Your task to perform on an android device: turn off notifications settings in the gmail app Image 0: 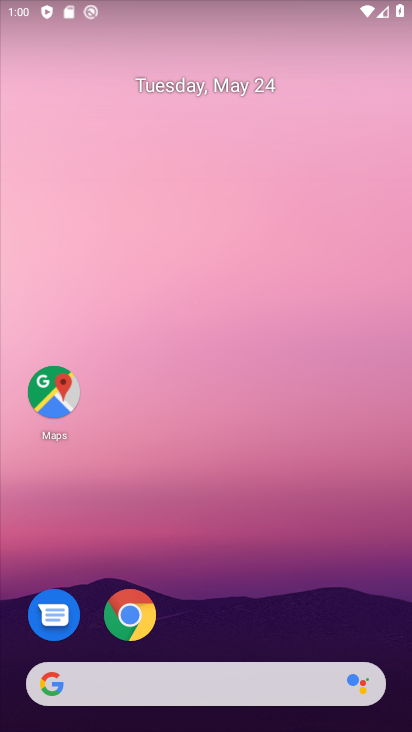
Step 0: drag from (216, 641) to (243, 127)
Your task to perform on an android device: turn off notifications settings in the gmail app Image 1: 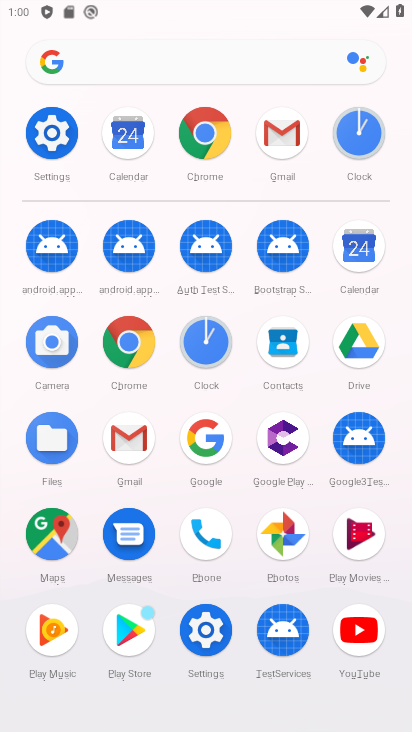
Step 1: click (129, 431)
Your task to perform on an android device: turn off notifications settings in the gmail app Image 2: 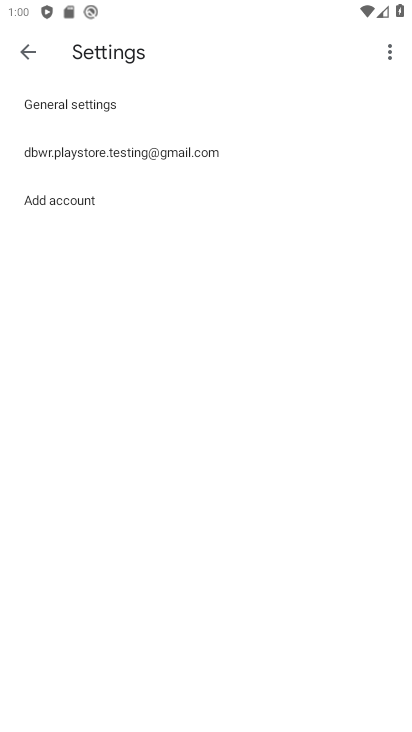
Step 2: click (138, 95)
Your task to perform on an android device: turn off notifications settings in the gmail app Image 3: 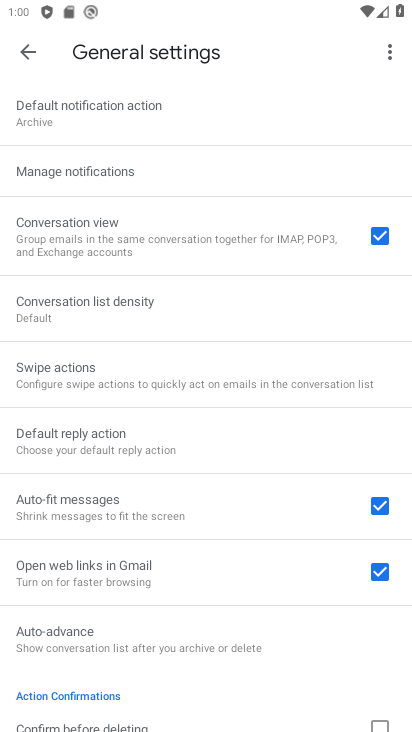
Step 3: click (122, 165)
Your task to perform on an android device: turn off notifications settings in the gmail app Image 4: 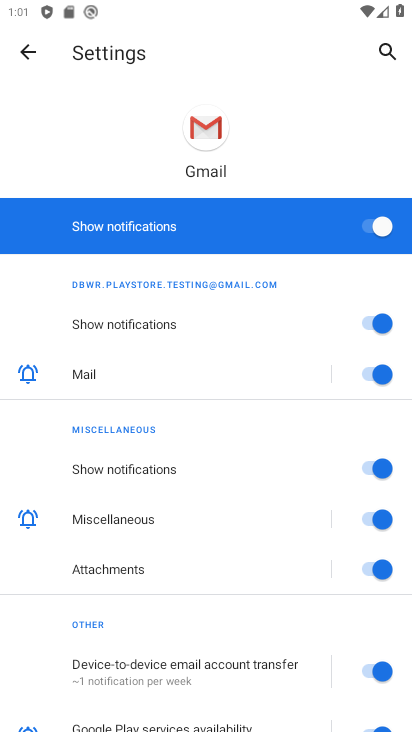
Step 4: click (364, 225)
Your task to perform on an android device: turn off notifications settings in the gmail app Image 5: 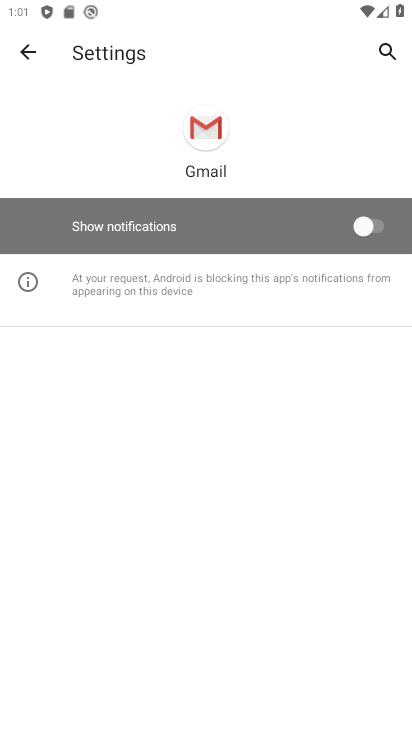
Step 5: task complete